Your task to perform on an android device: Clear the cart on costco. Add "lg ultragear" to the cart on costco, then select checkout. Image 0: 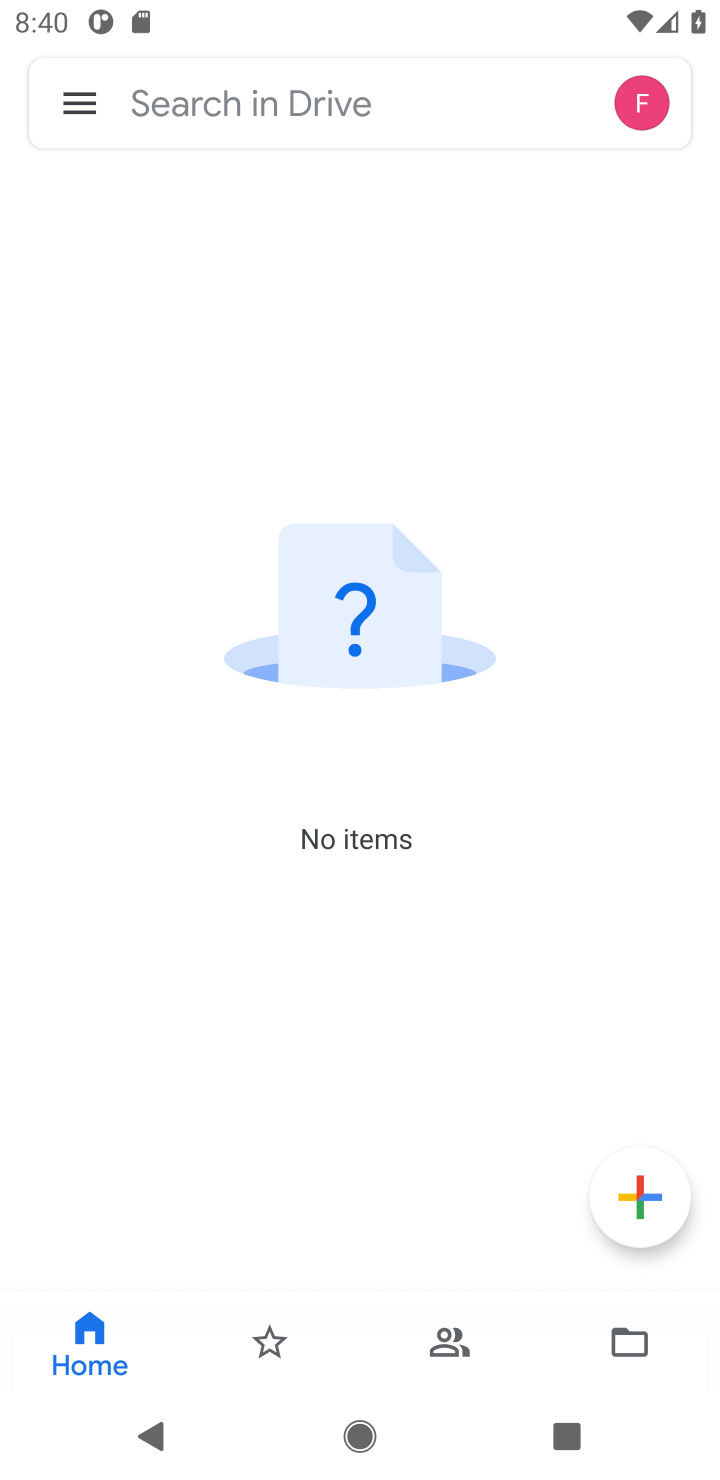
Step 0: press home button
Your task to perform on an android device: Clear the cart on costco. Add "lg ultragear" to the cart on costco, then select checkout. Image 1: 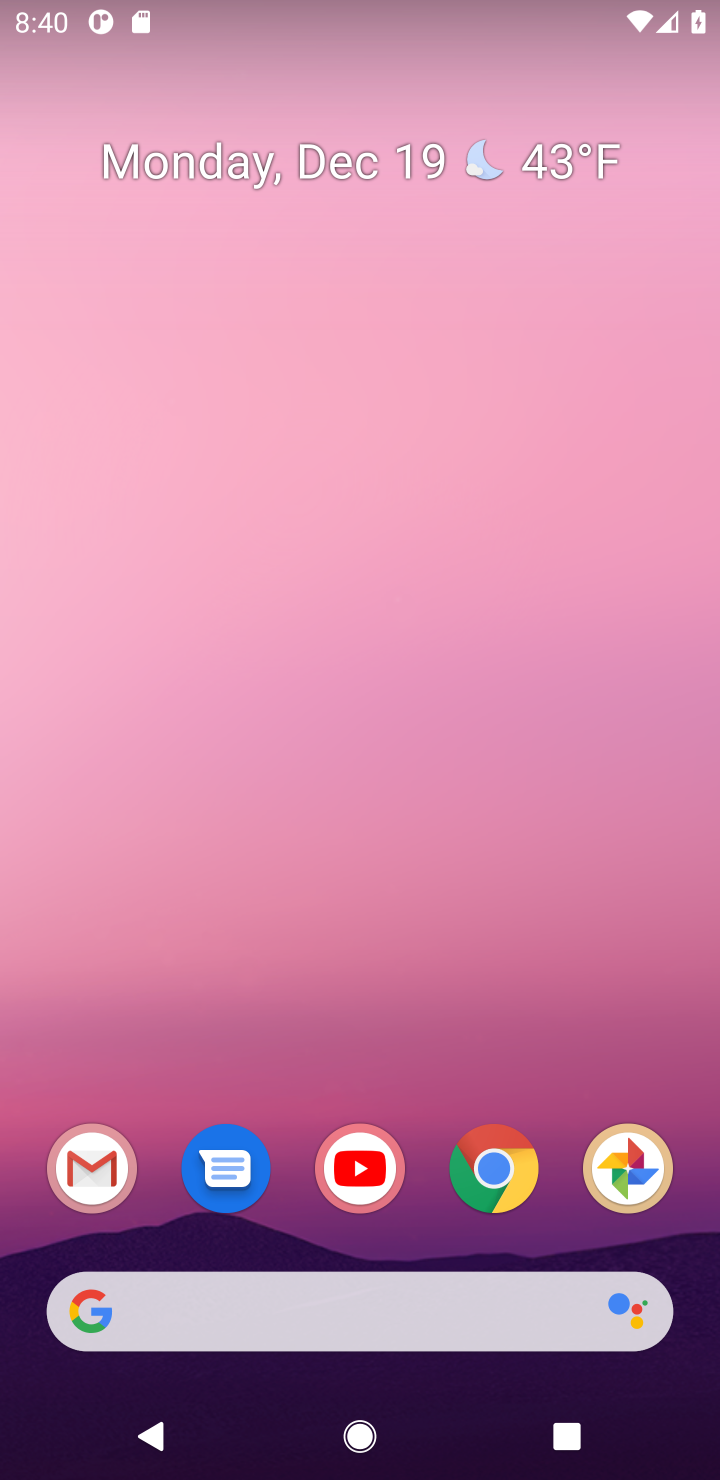
Step 1: click (500, 1174)
Your task to perform on an android device: Clear the cart on costco. Add "lg ultragear" to the cart on costco, then select checkout. Image 2: 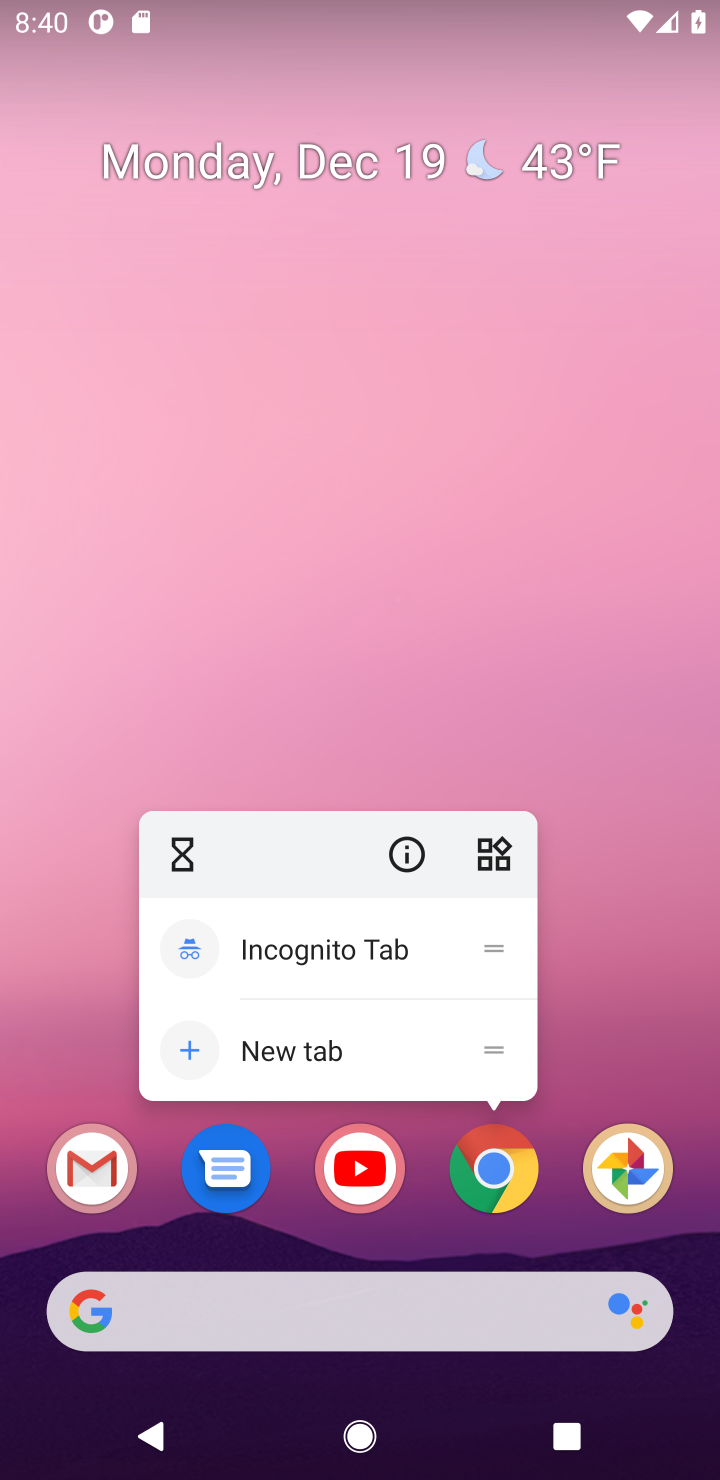
Step 2: click (500, 1174)
Your task to perform on an android device: Clear the cart on costco. Add "lg ultragear" to the cart on costco, then select checkout. Image 3: 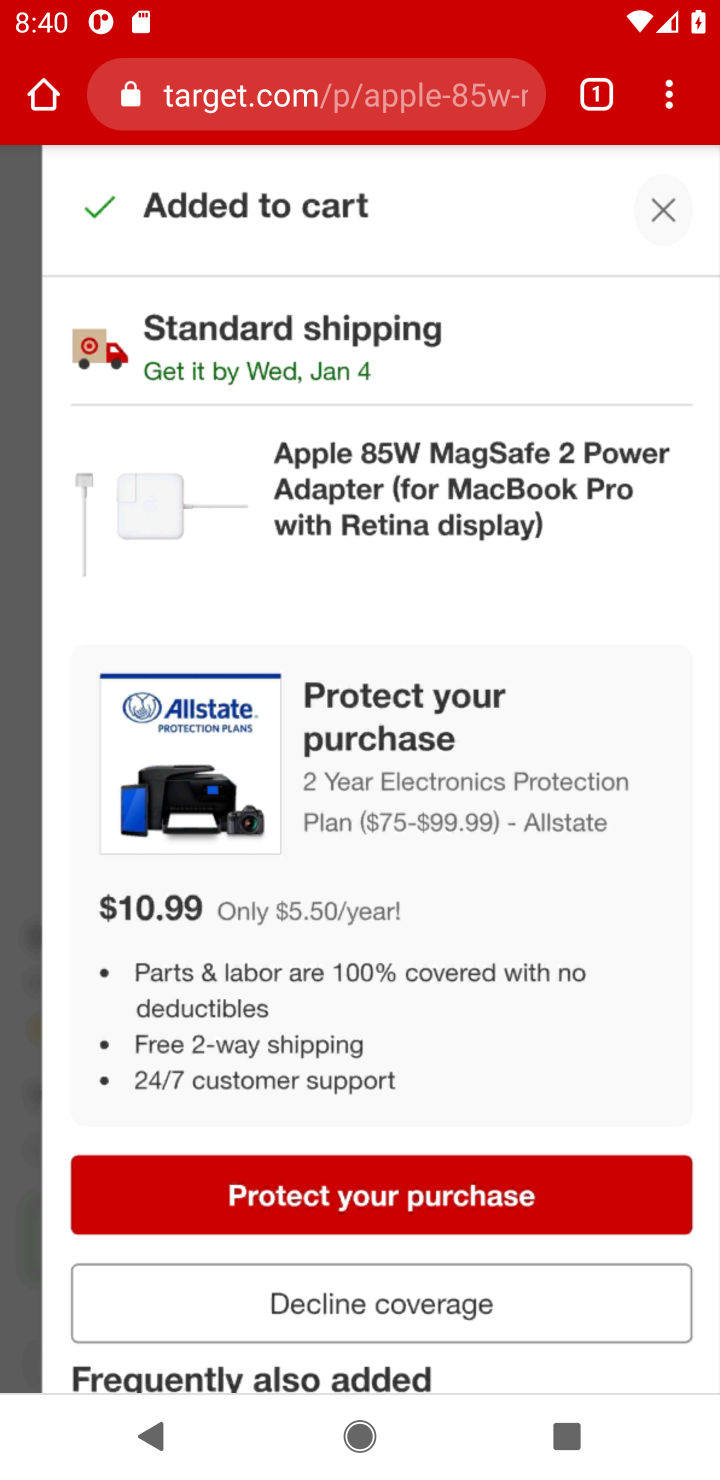
Step 3: click (271, 107)
Your task to perform on an android device: Clear the cart on costco. Add "lg ultragear" to the cart on costco, then select checkout. Image 4: 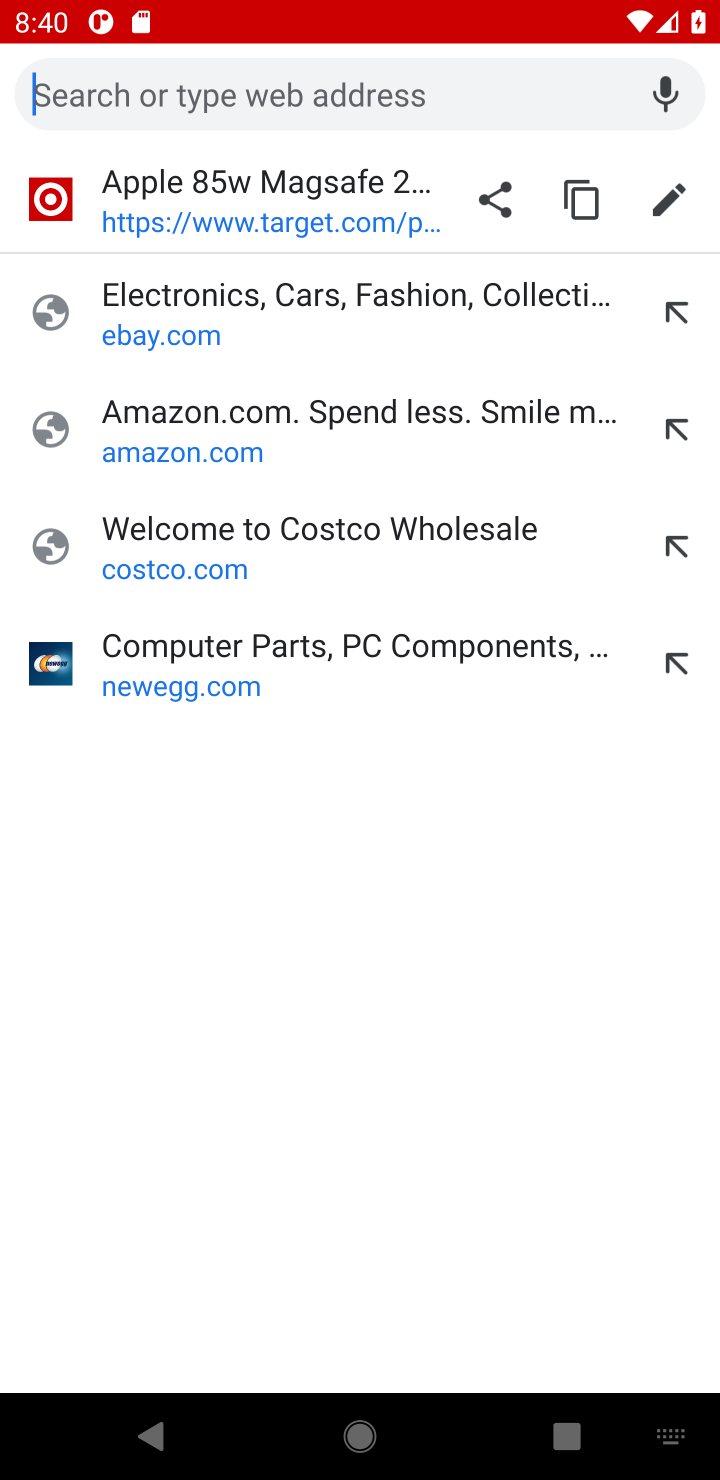
Step 4: click (141, 551)
Your task to perform on an android device: Clear the cart on costco. Add "lg ultragear" to the cart on costco, then select checkout. Image 5: 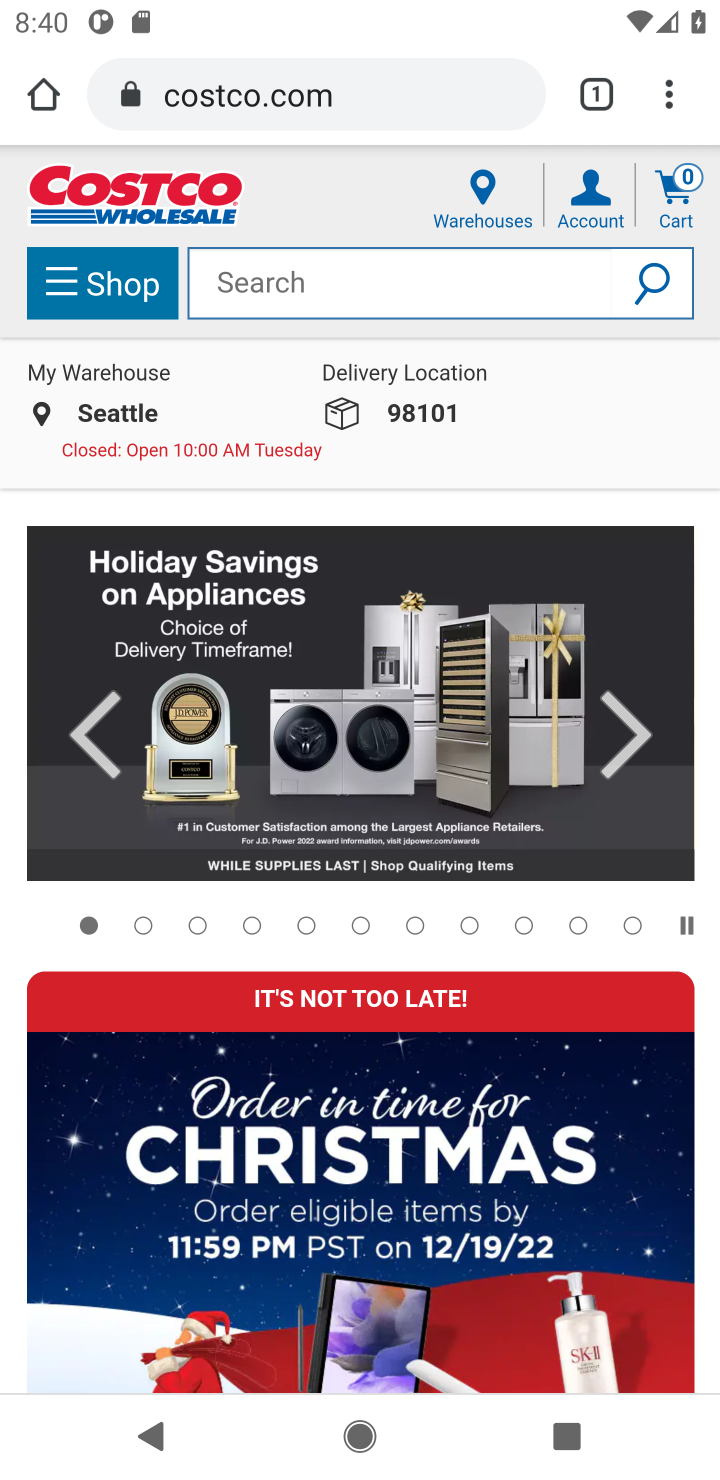
Step 5: click (670, 210)
Your task to perform on an android device: Clear the cart on costco. Add "lg ultragear" to the cart on costco, then select checkout. Image 6: 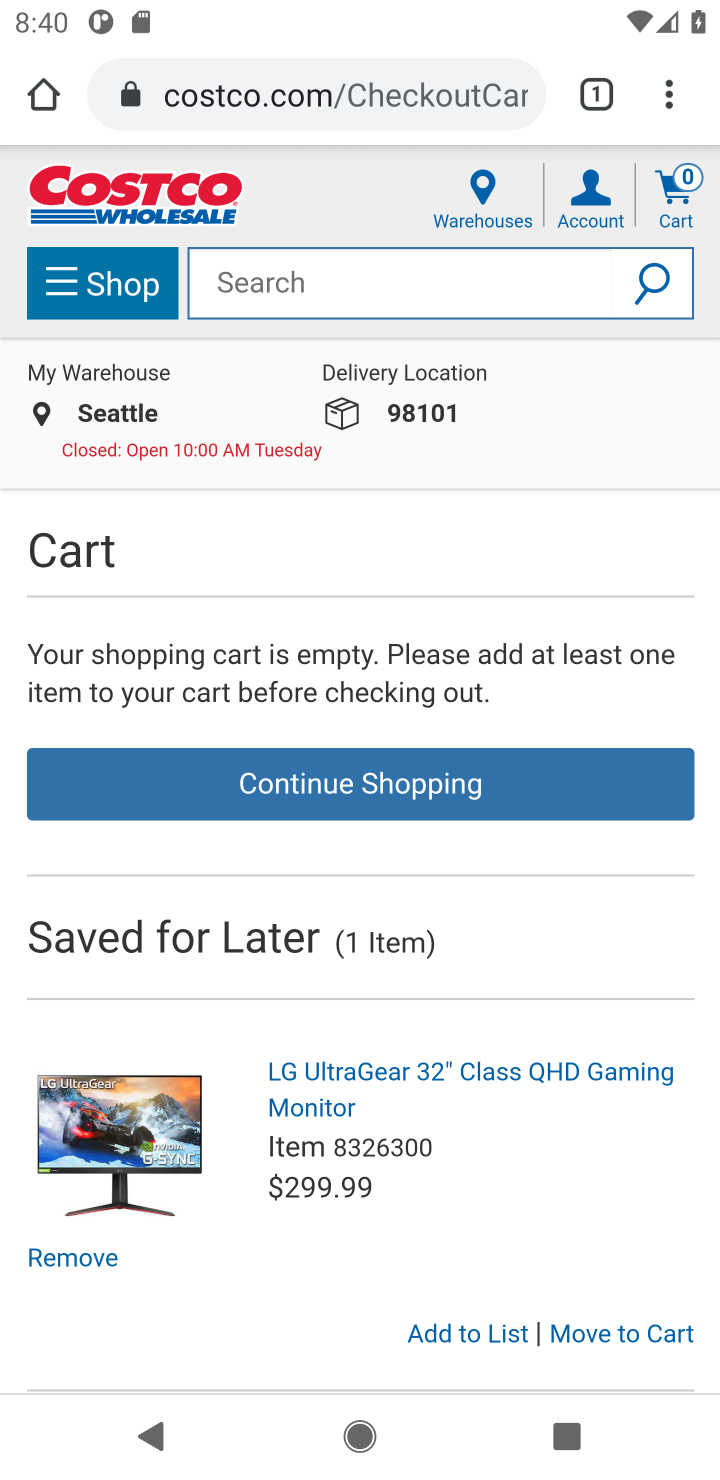
Step 6: click (237, 286)
Your task to perform on an android device: Clear the cart on costco. Add "lg ultragear" to the cart on costco, then select checkout. Image 7: 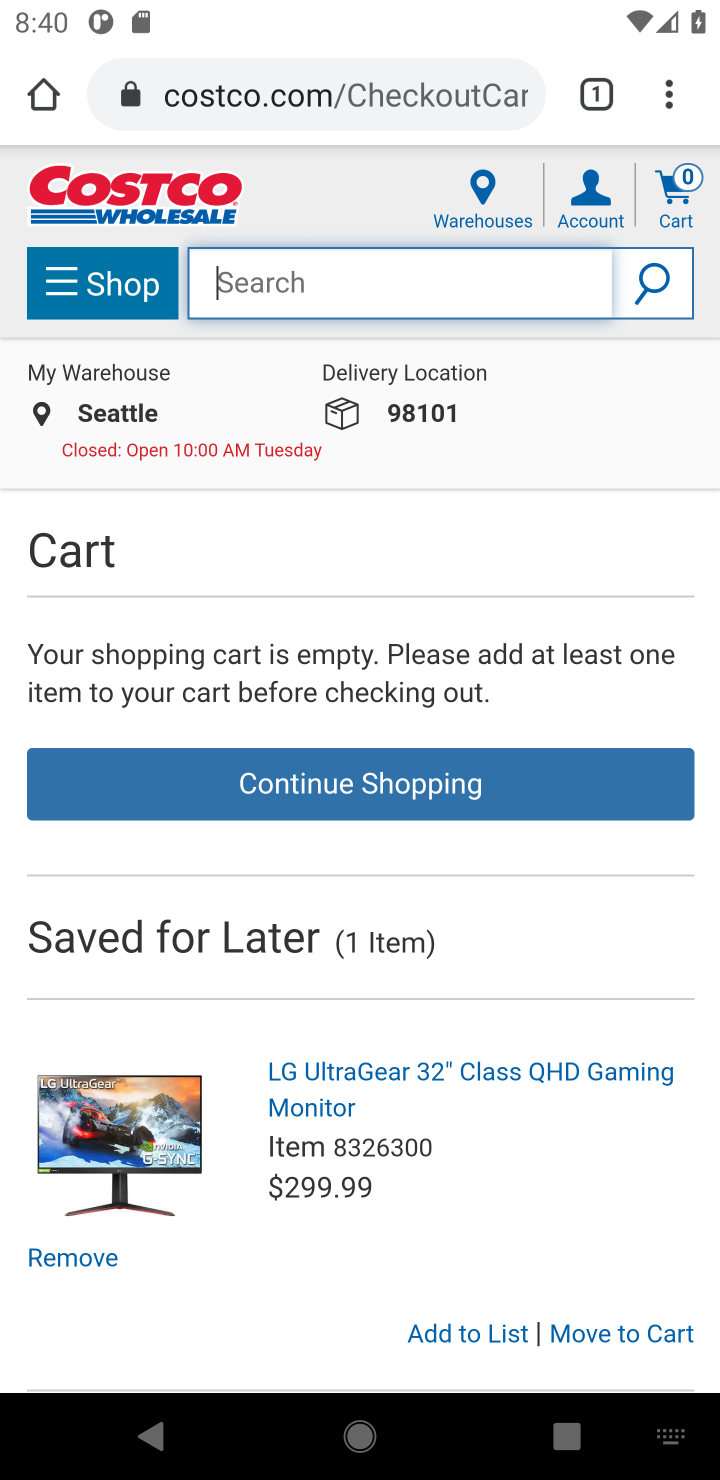
Step 7: type "lg ultragear"
Your task to perform on an android device: Clear the cart on costco. Add "lg ultragear" to the cart on costco, then select checkout. Image 8: 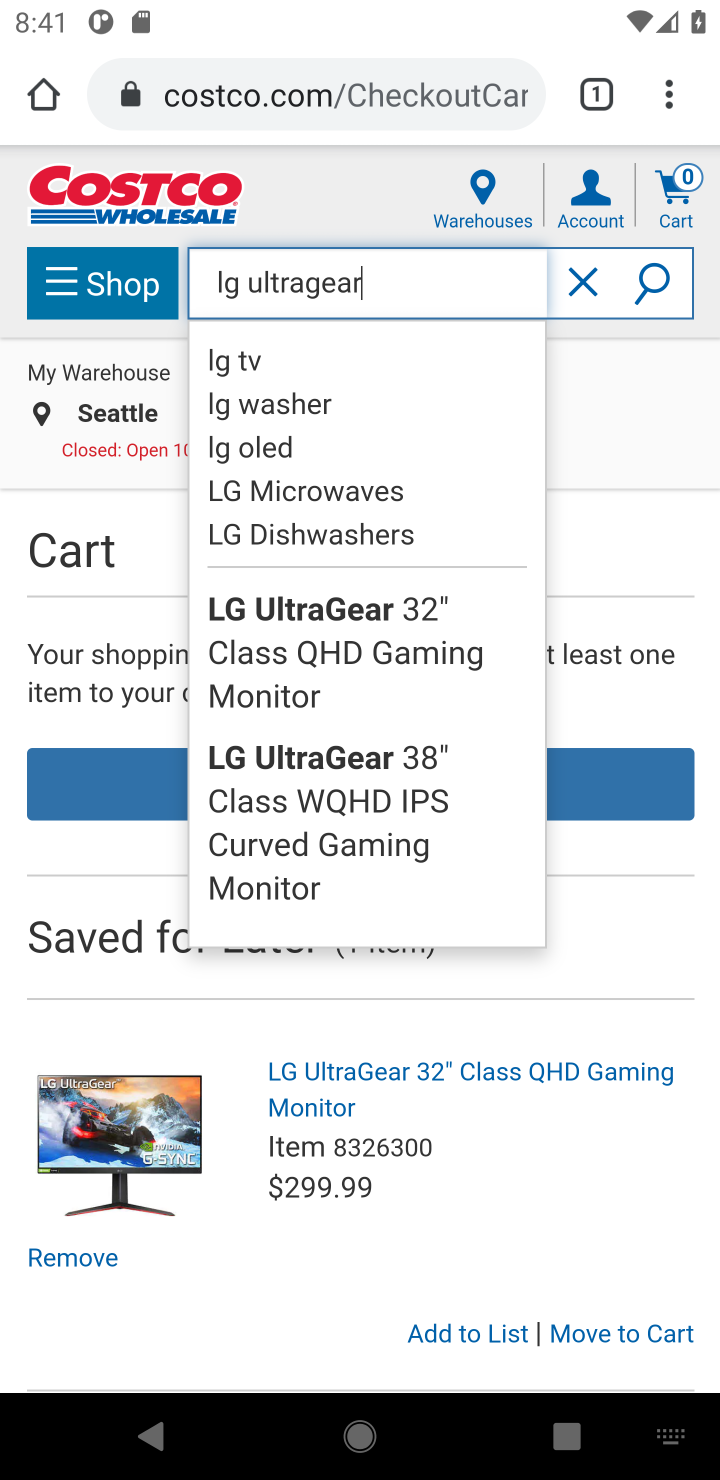
Step 8: click (655, 282)
Your task to perform on an android device: Clear the cart on costco. Add "lg ultragear" to the cart on costco, then select checkout. Image 9: 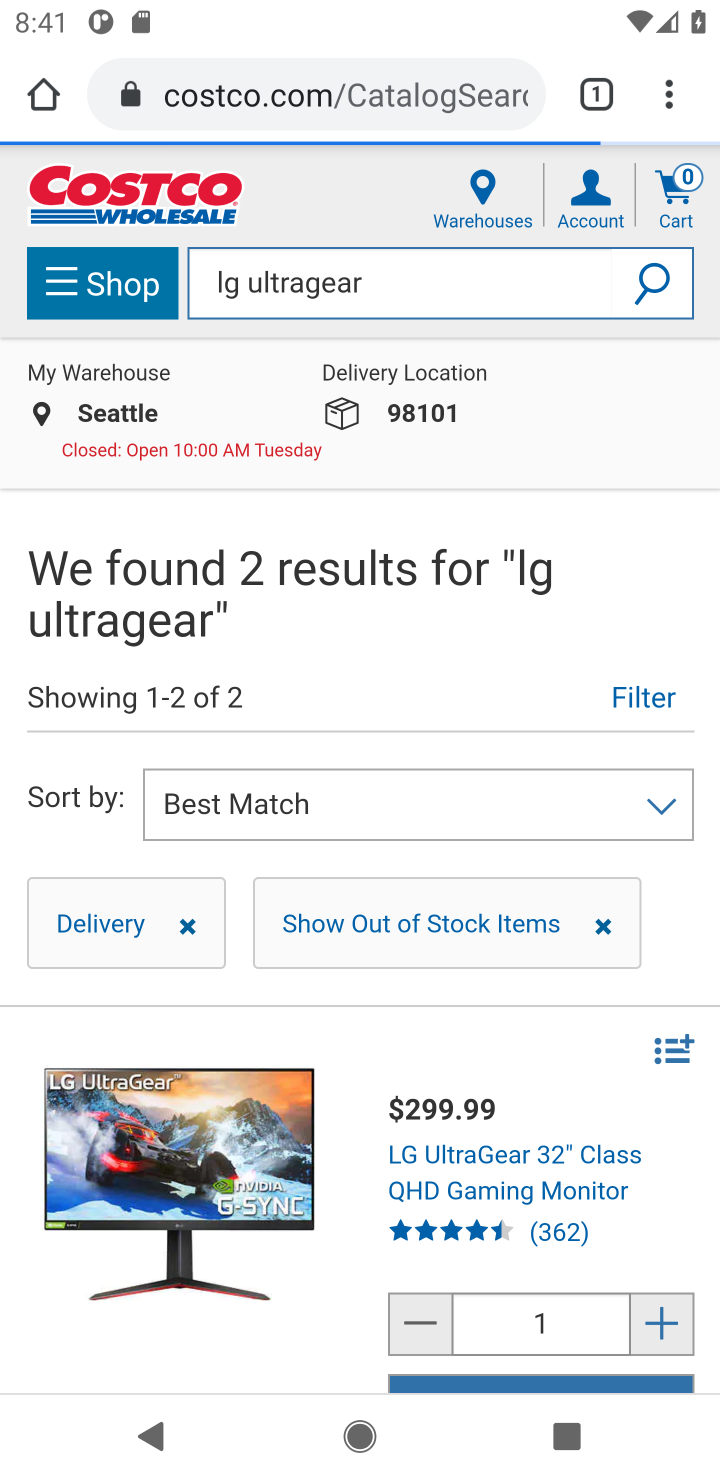
Step 9: drag from (236, 891) to (265, 443)
Your task to perform on an android device: Clear the cart on costco. Add "lg ultragear" to the cart on costco, then select checkout. Image 10: 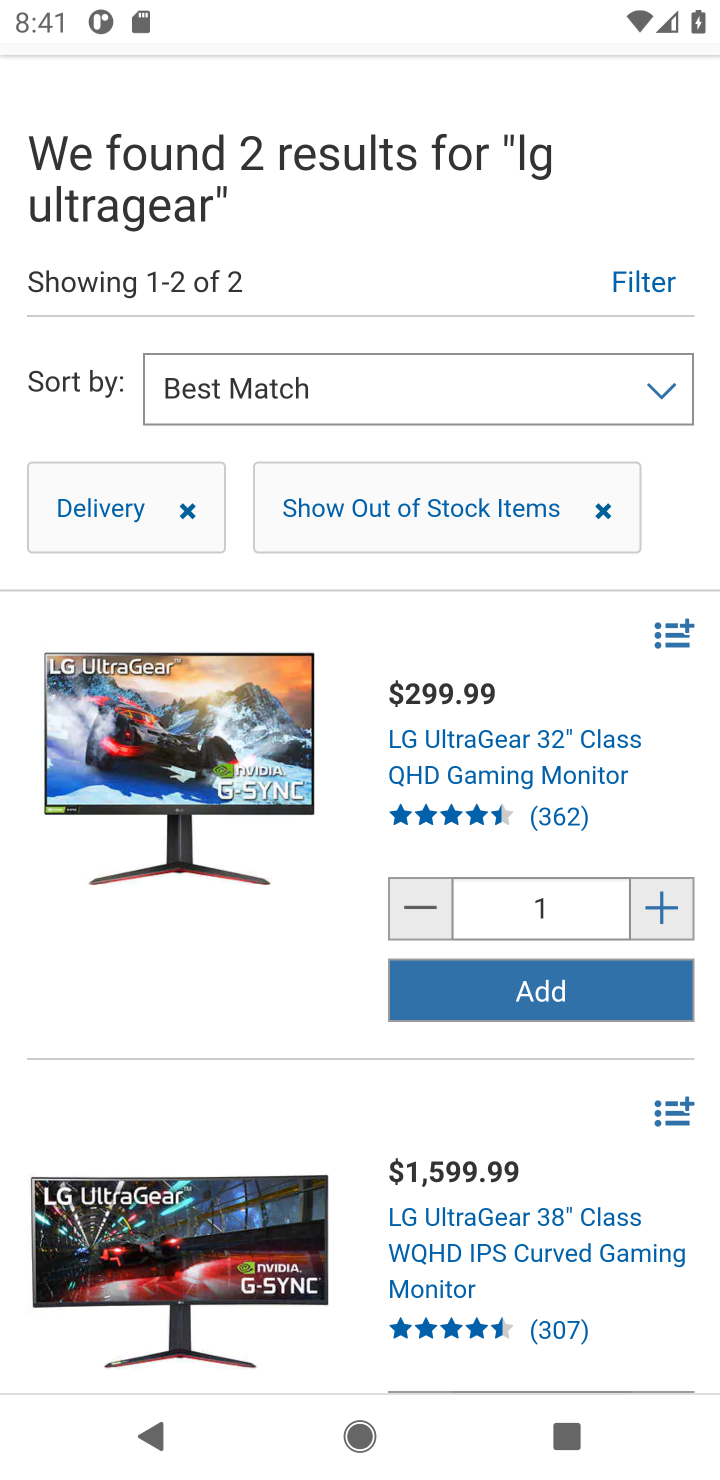
Step 10: click (503, 995)
Your task to perform on an android device: Clear the cart on costco. Add "lg ultragear" to the cart on costco, then select checkout. Image 11: 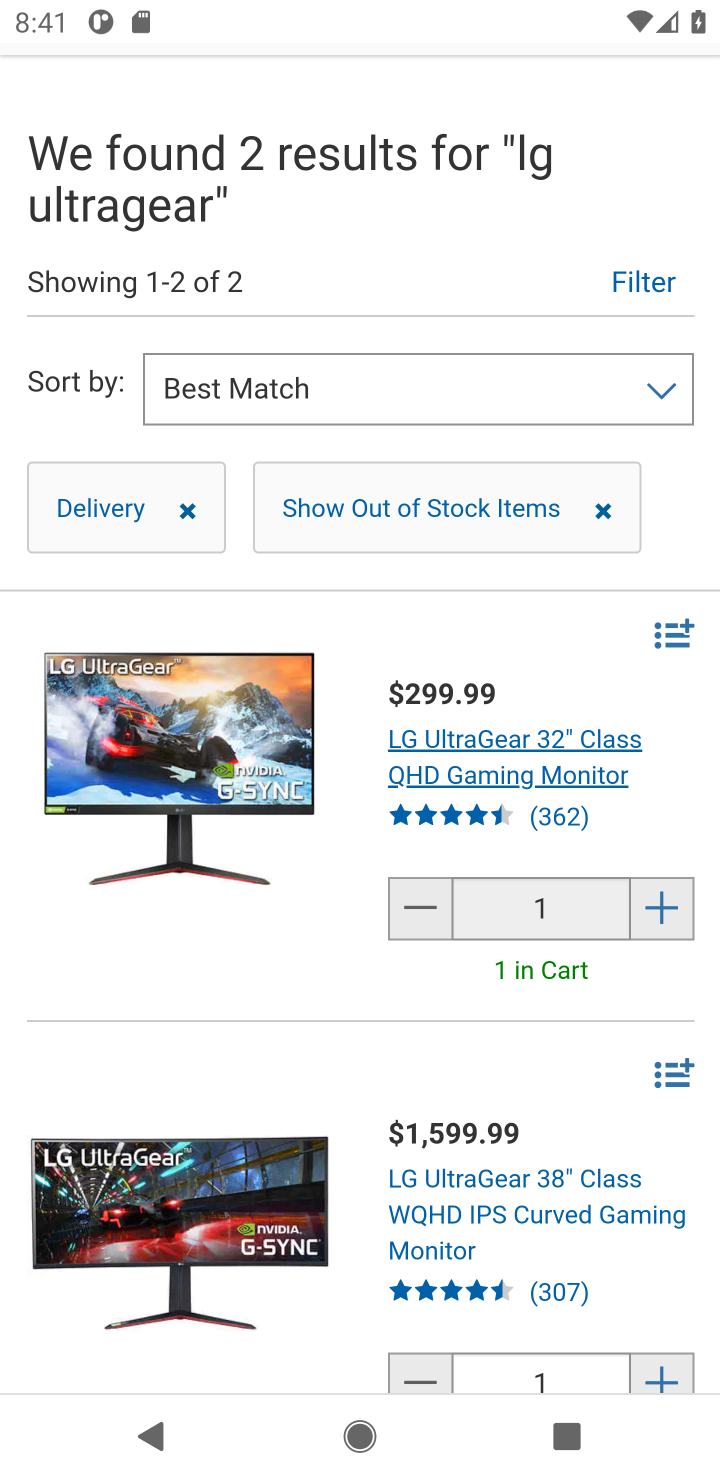
Step 11: drag from (479, 274) to (450, 711)
Your task to perform on an android device: Clear the cart on costco. Add "lg ultragear" to the cart on costco, then select checkout. Image 12: 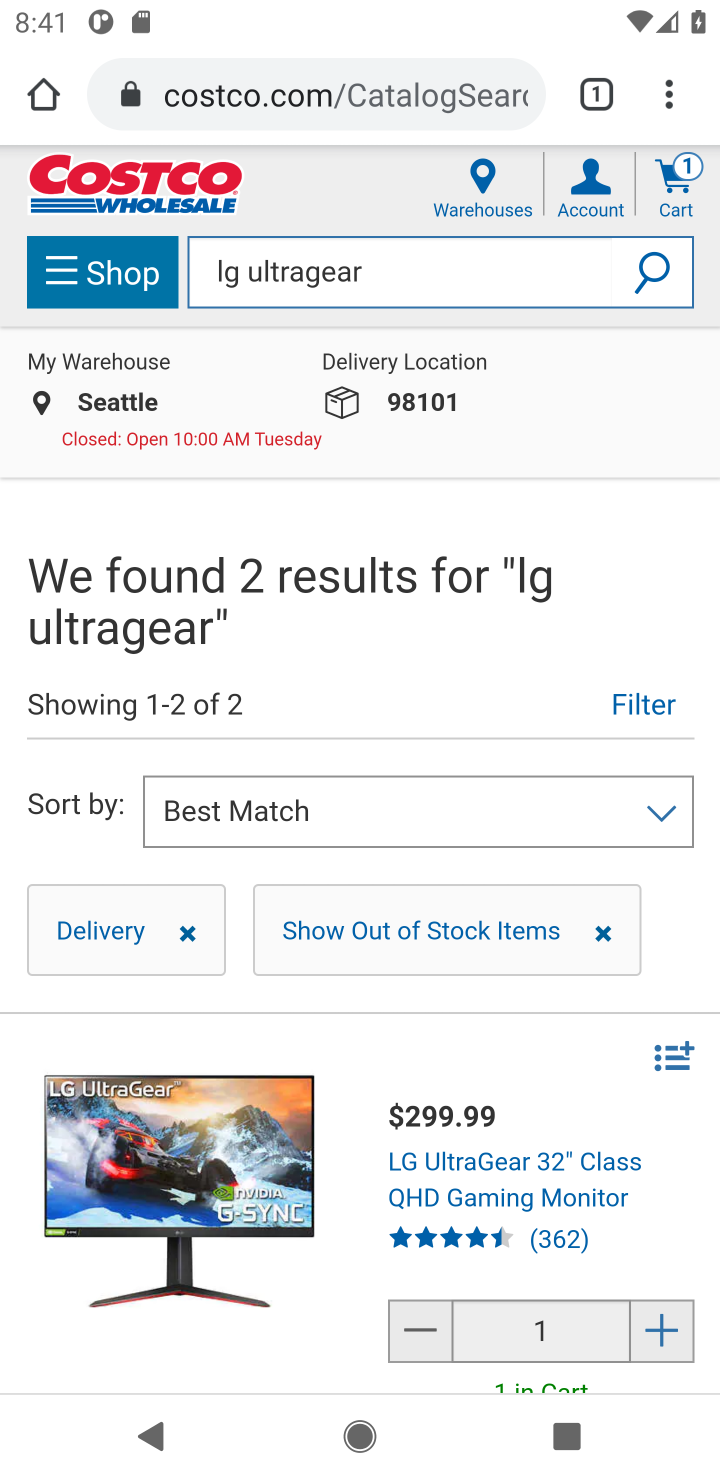
Step 12: click (675, 176)
Your task to perform on an android device: Clear the cart on costco. Add "lg ultragear" to the cart on costco, then select checkout. Image 13: 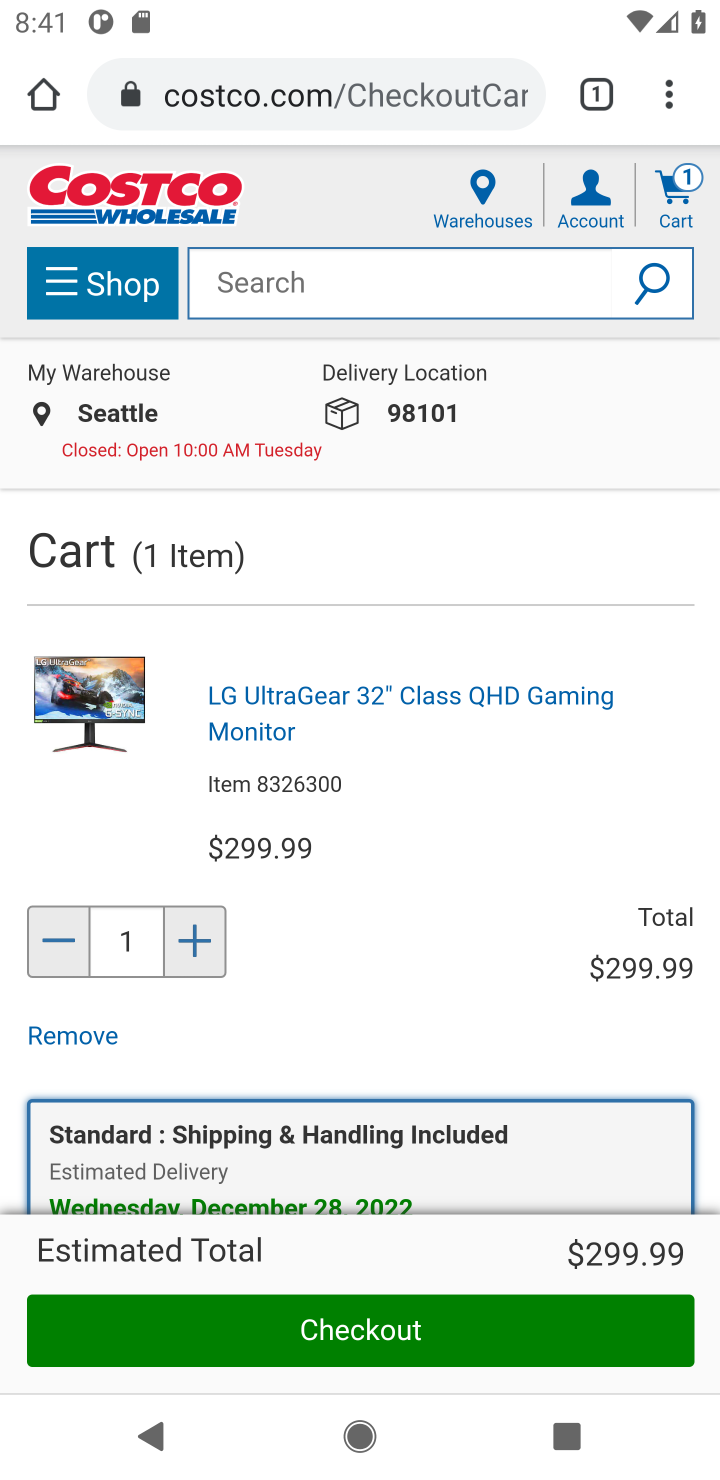
Step 13: click (324, 1331)
Your task to perform on an android device: Clear the cart on costco. Add "lg ultragear" to the cart on costco, then select checkout. Image 14: 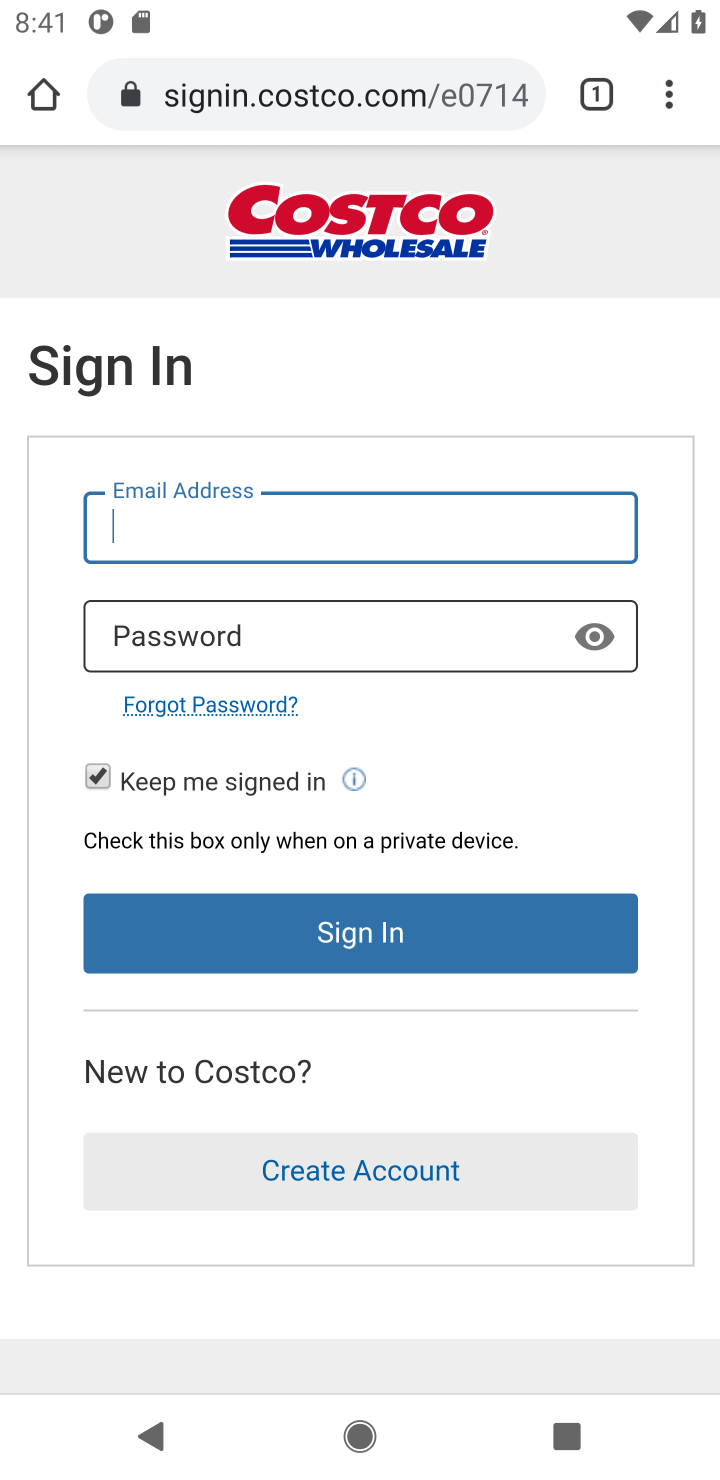
Step 14: task complete